Your task to perform on an android device: toggle location history Image 0: 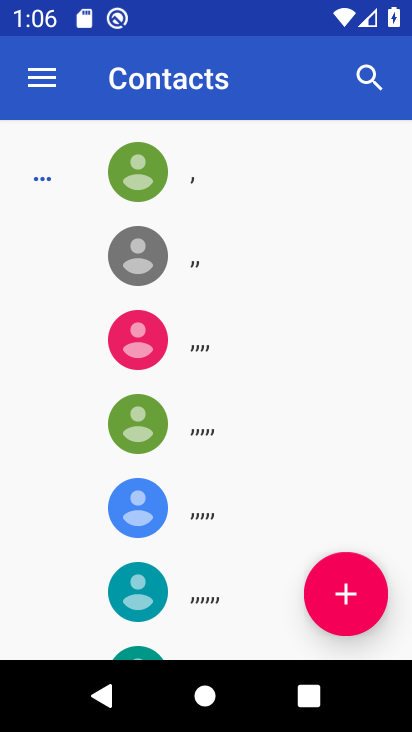
Step 0: drag from (148, 555) to (176, 205)
Your task to perform on an android device: toggle location history Image 1: 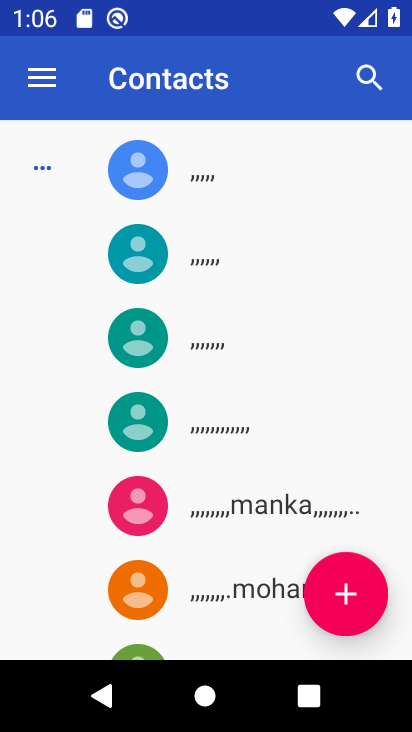
Step 1: drag from (221, 530) to (255, 210)
Your task to perform on an android device: toggle location history Image 2: 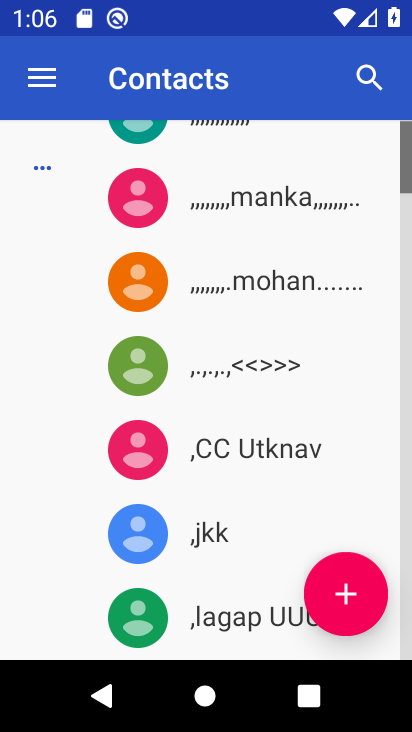
Step 2: press home button
Your task to perform on an android device: toggle location history Image 3: 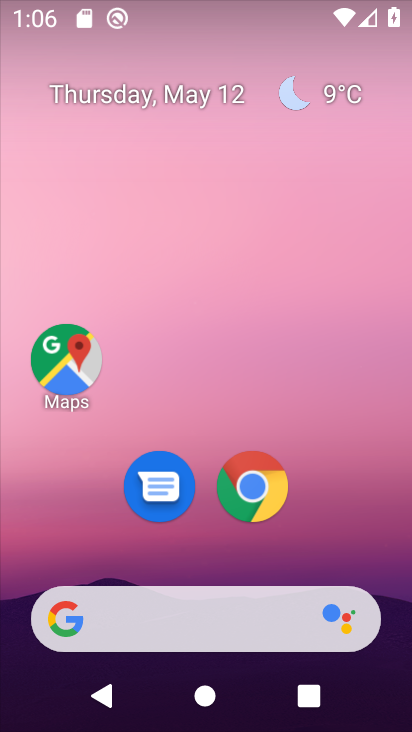
Step 3: drag from (155, 591) to (190, 287)
Your task to perform on an android device: toggle location history Image 4: 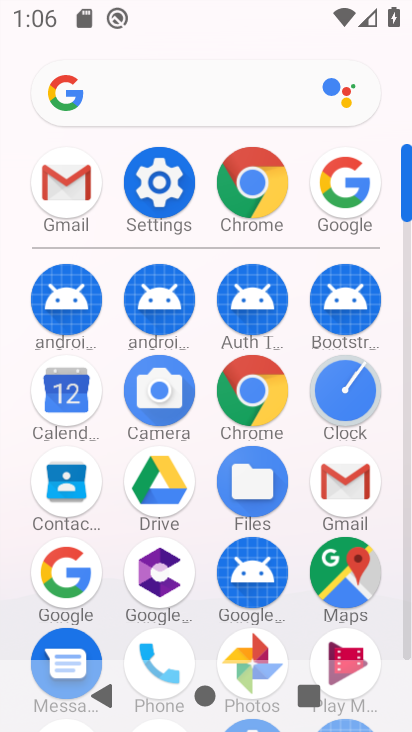
Step 4: click (142, 185)
Your task to perform on an android device: toggle location history Image 5: 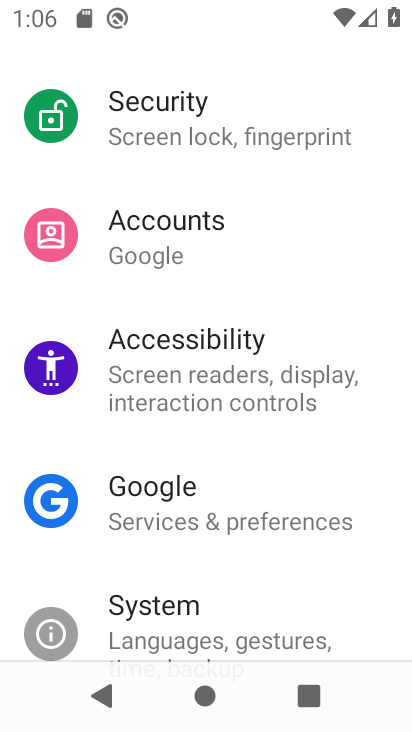
Step 5: drag from (155, 581) to (173, 191)
Your task to perform on an android device: toggle location history Image 6: 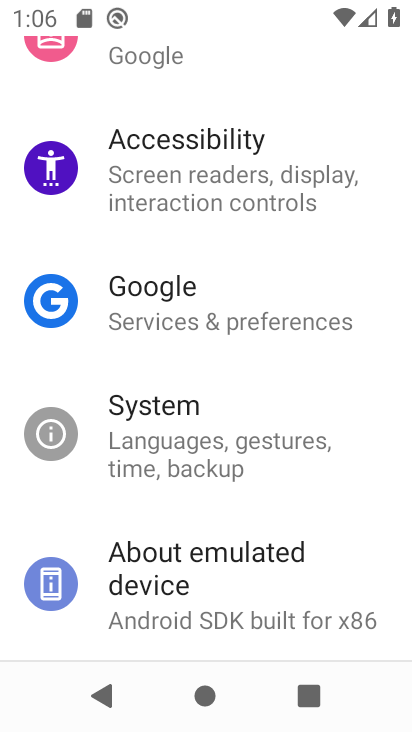
Step 6: drag from (177, 132) to (158, 528)
Your task to perform on an android device: toggle location history Image 7: 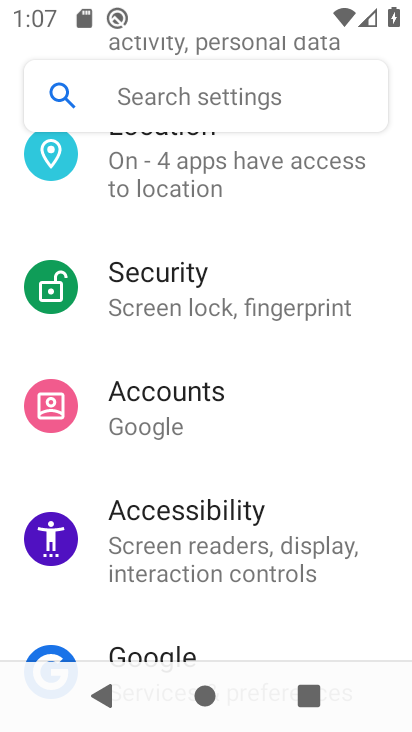
Step 7: drag from (194, 200) to (163, 477)
Your task to perform on an android device: toggle location history Image 8: 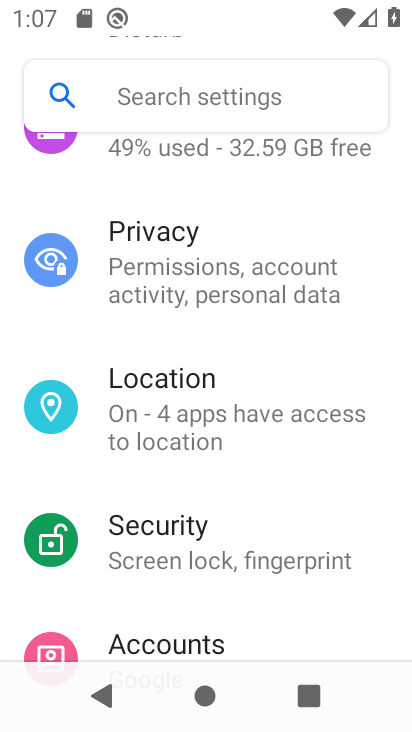
Step 8: click (175, 408)
Your task to perform on an android device: toggle location history Image 9: 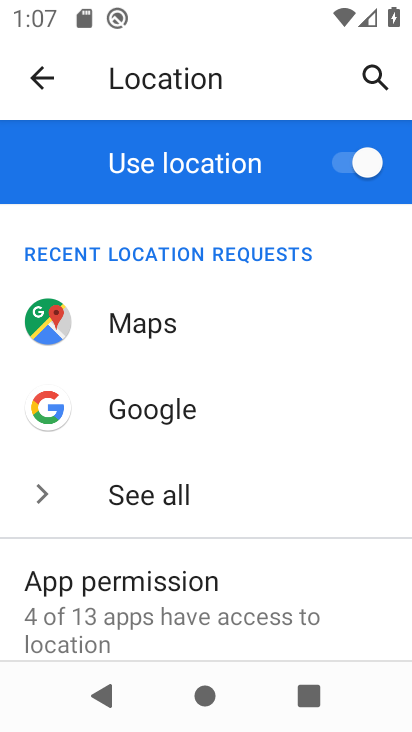
Step 9: drag from (173, 623) to (206, 301)
Your task to perform on an android device: toggle location history Image 10: 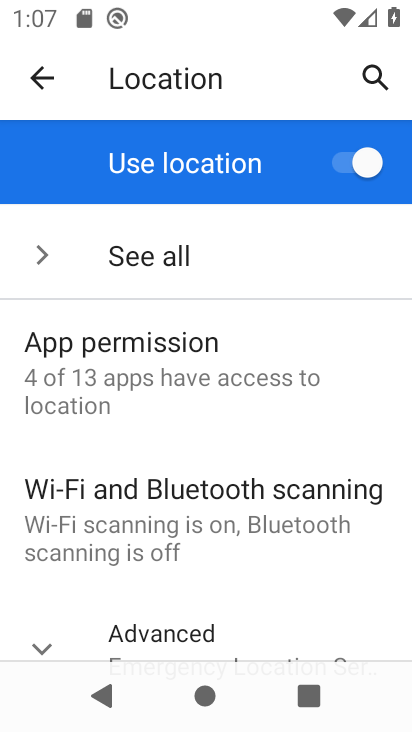
Step 10: click (149, 628)
Your task to perform on an android device: toggle location history Image 11: 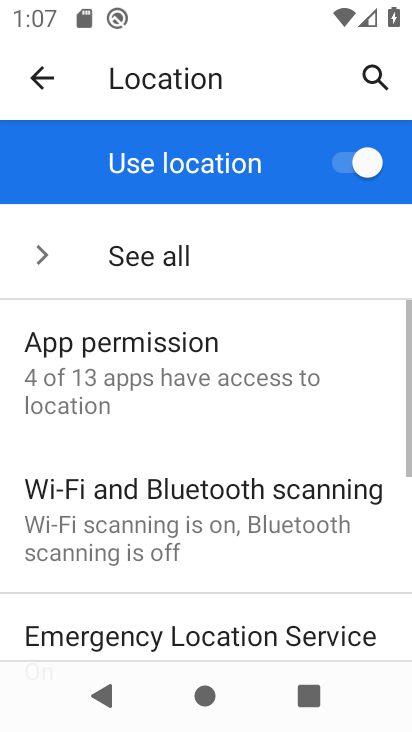
Step 11: drag from (147, 637) to (153, 343)
Your task to perform on an android device: toggle location history Image 12: 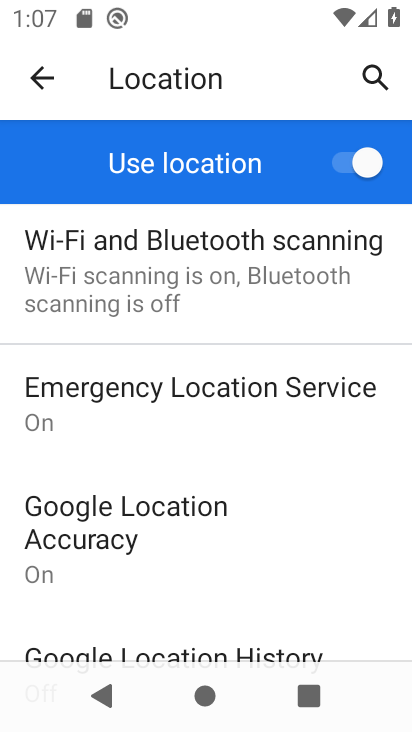
Step 12: click (141, 538)
Your task to perform on an android device: toggle location history Image 13: 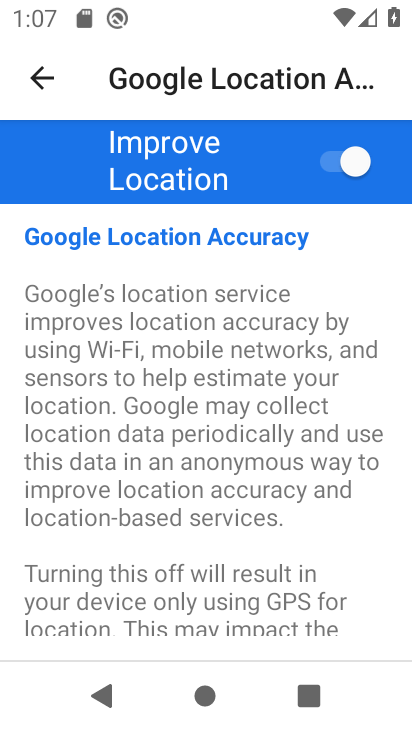
Step 13: drag from (279, 607) to (304, 281)
Your task to perform on an android device: toggle location history Image 14: 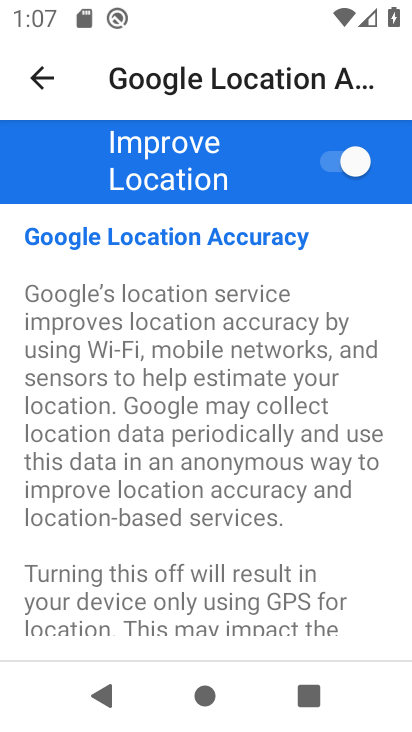
Step 14: drag from (220, 585) to (222, 263)
Your task to perform on an android device: toggle location history Image 15: 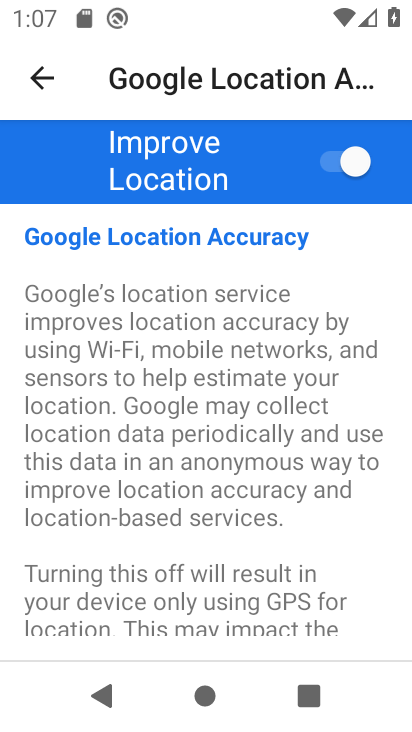
Step 15: drag from (211, 438) to (244, 219)
Your task to perform on an android device: toggle location history Image 16: 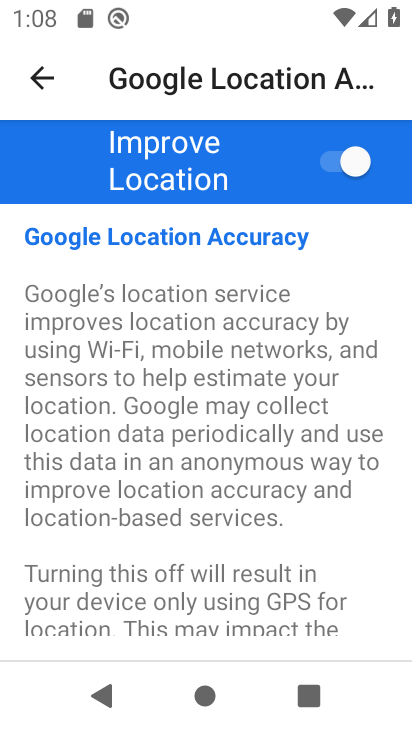
Step 16: drag from (181, 562) to (244, 53)
Your task to perform on an android device: toggle location history Image 17: 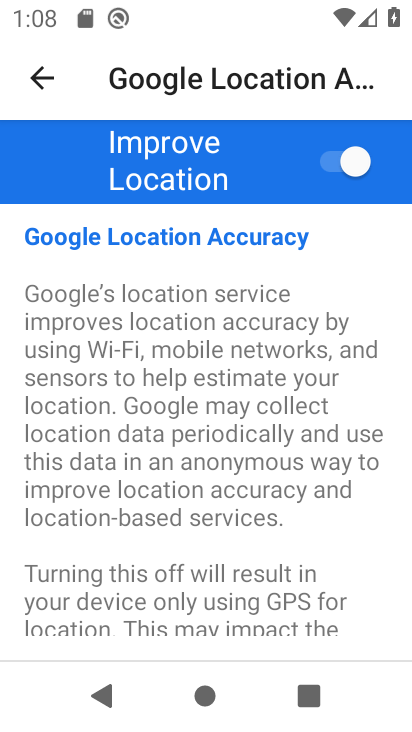
Step 17: drag from (167, 508) to (191, 191)
Your task to perform on an android device: toggle location history Image 18: 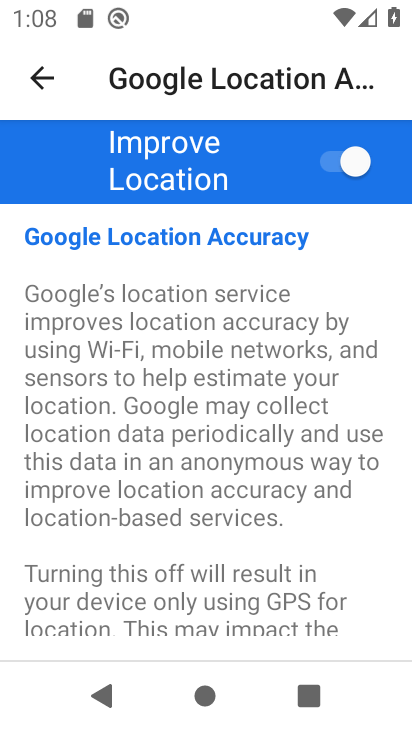
Step 18: drag from (223, 465) to (235, 109)
Your task to perform on an android device: toggle location history Image 19: 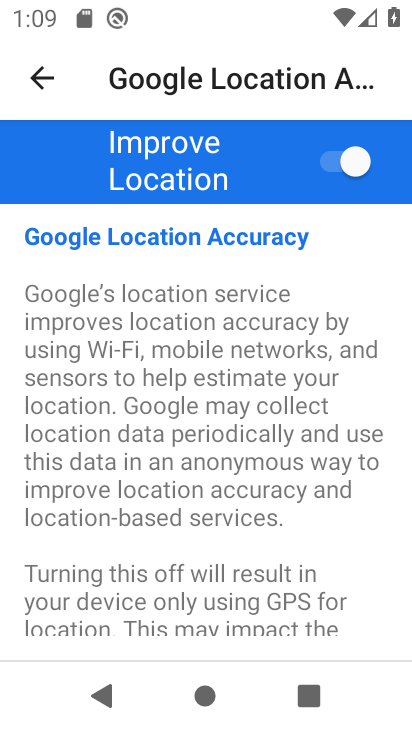
Step 19: drag from (293, 457) to (290, 108)
Your task to perform on an android device: toggle location history Image 20: 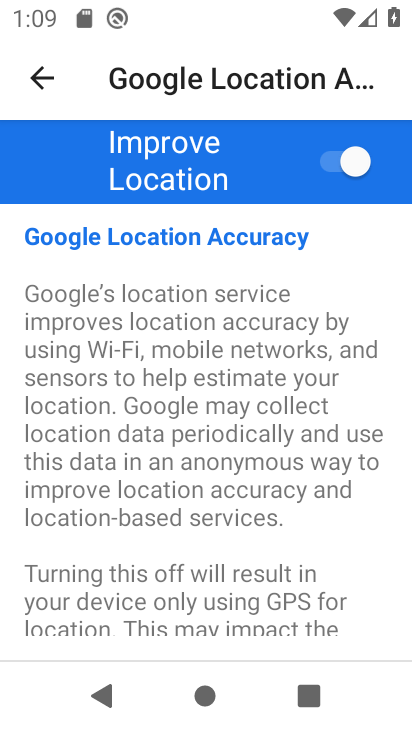
Step 20: click (334, 161)
Your task to perform on an android device: toggle location history Image 21: 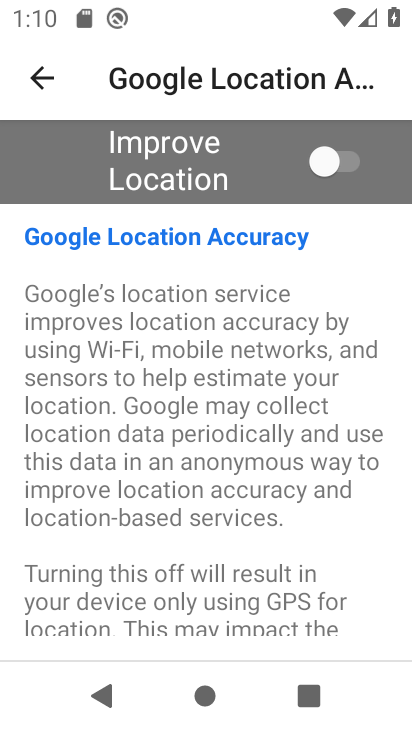
Step 21: task complete